Your task to perform on an android device: empty trash in the gmail app Image 0: 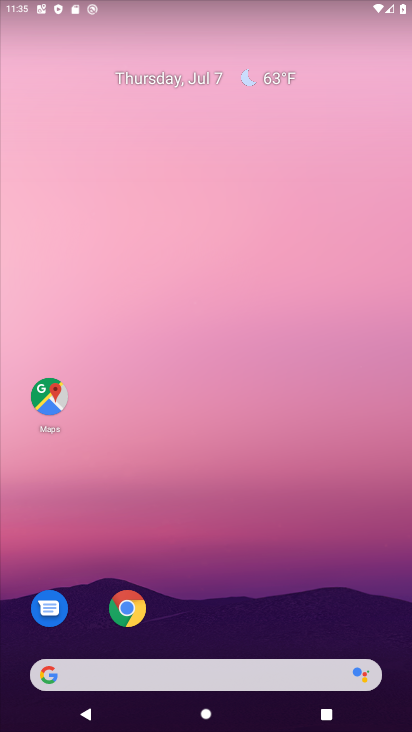
Step 0: drag from (11, 731) to (254, 1)
Your task to perform on an android device: empty trash in the gmail app Image 1: 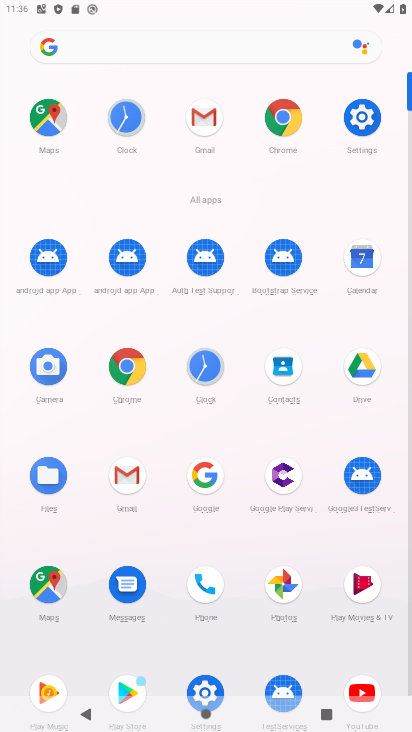
Step 1: click (206, 119)
Your task to perform on an android device: empty trash in the gmail app Image 2: 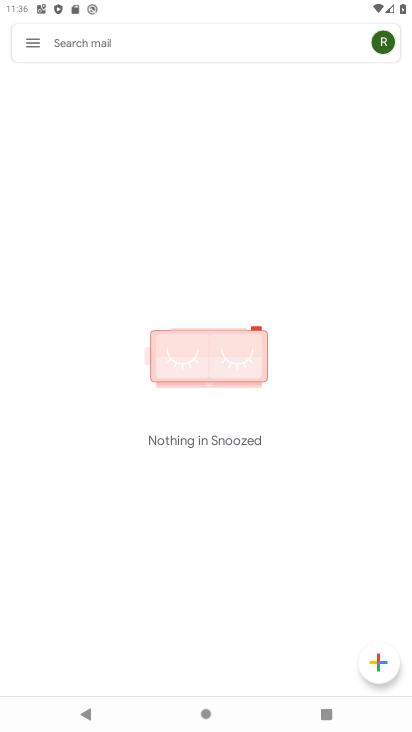
Step 2: click (41, 45)
Your task to perform on an android device: empty trash in the gmail app Image 3: 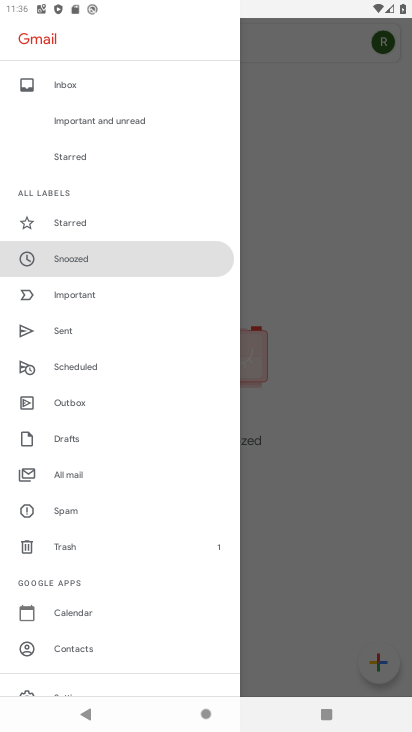
Step 3: click (38, 551)
Your task to perform on an android device: empty trash in the gmail app Image 4: 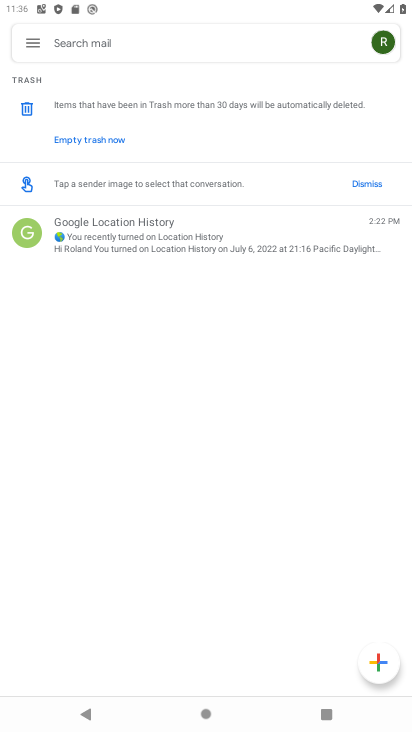
Step 4: click (334, 237)
Your task to perform on an android device: empty trash in the gmail app Image 5: 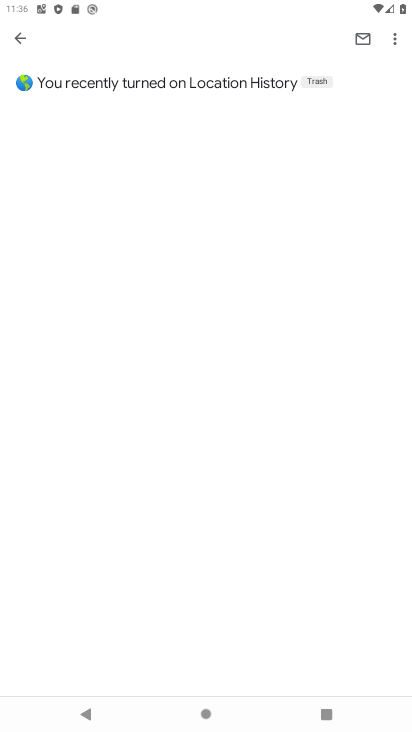
Step 5: click (22, 33)
Your task to perform on an android device: empty trash in the gmail app Image 6: 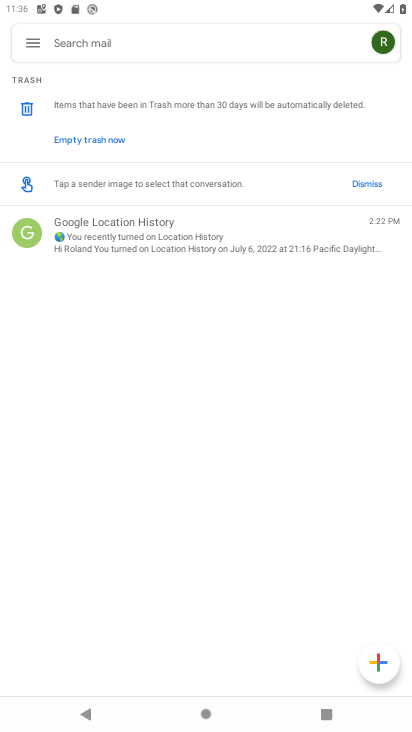
Step 6: click (91, 140)
Your task to perform on an android device: empty trash in the gmail app Image 7: 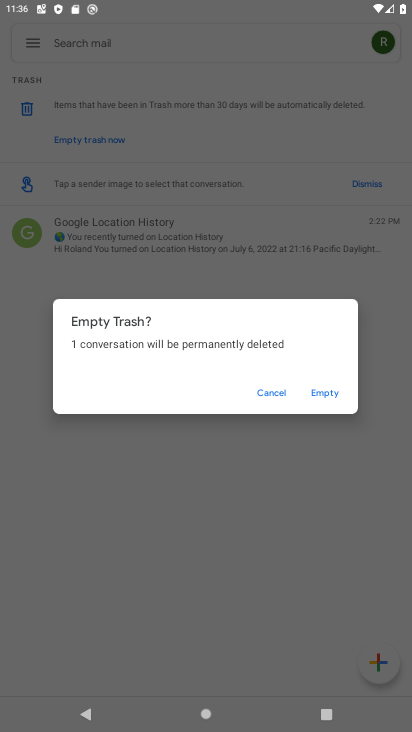
Step 7: click (316, 396)
Your task to perform on an android device: empty trash in the gmail app Image 8: 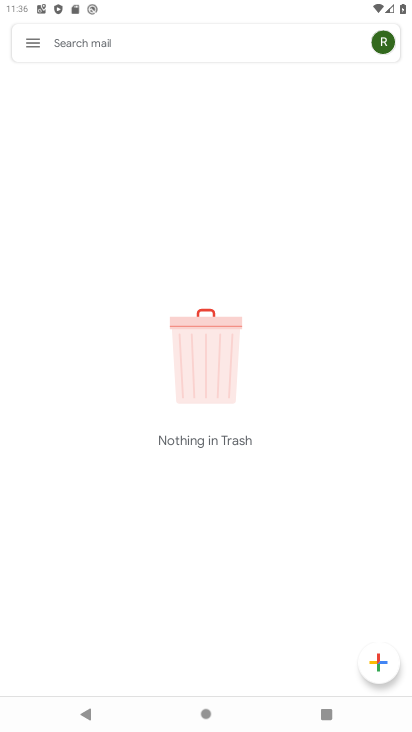
Step 8: task complete